Your task to perform on an android device: Open Google Chrome and click the shortcut for Amazon.com Image 0: 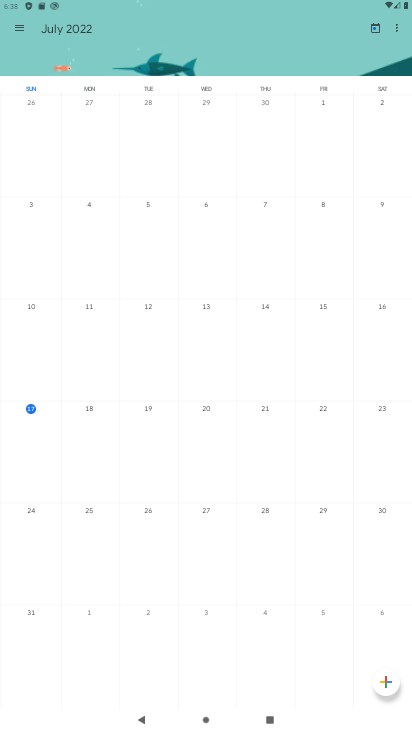
Step 0: press home button
Your task to perform on an android device: Open Google Chrome and click the shortcut for Amazon.com Image 1: 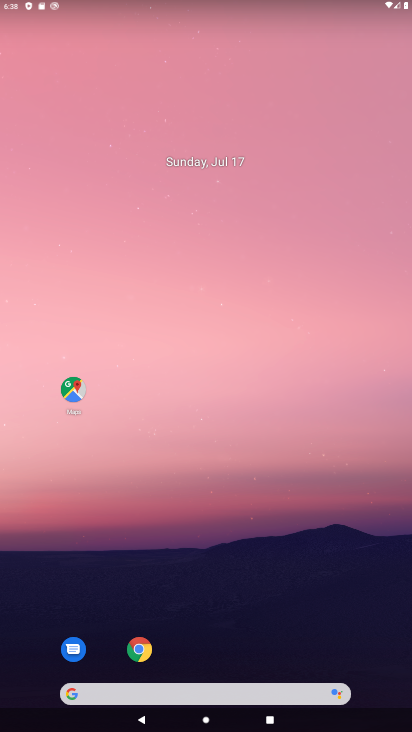
Step 1: click (139, 644)
Your task to perform on an android device: Open Google Chrome and click the shortcut for Amazon.com Image 2: 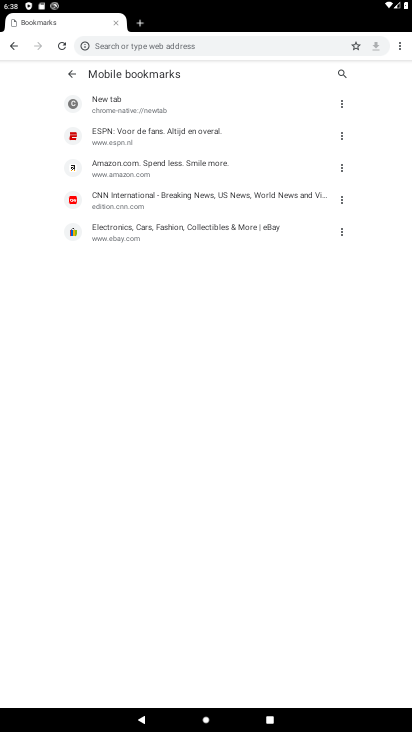
Step 2: click (395, 41)
Your task to perform on an android device: Open Google Chrome and click the shortcut for Amazon.com Image 3: 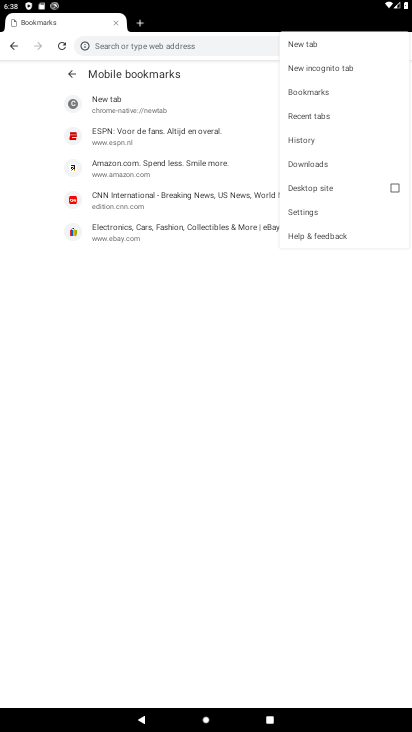
Step 3: click (313, 45)
Your task to perform on an android device: Open Google Chrome and click the shortcut for Amazon.com Image 4: 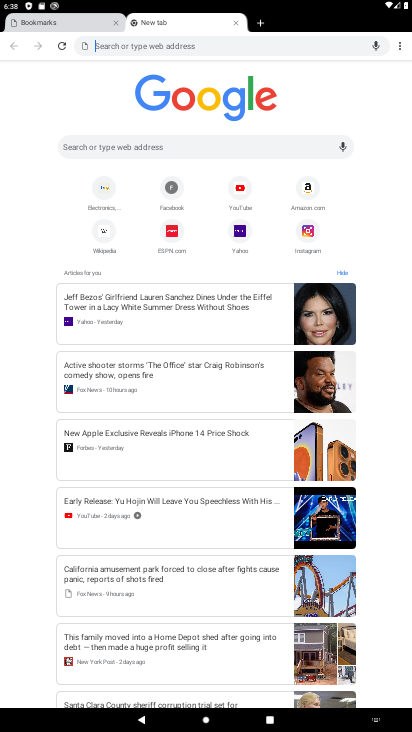
Step 4: click (307, 182)
Your task to perform on an android device: Open Google Chrome and click the shortcut for Amazon.com Image 5: 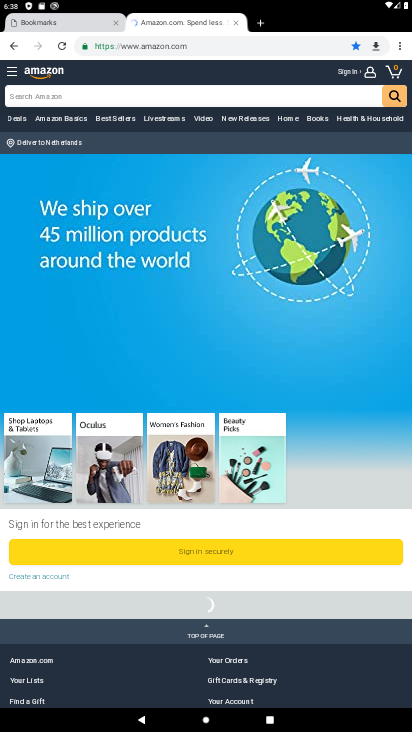
Step 5: task complete